Your task to perform on an android device: Go to Yahoo.com Image 0: 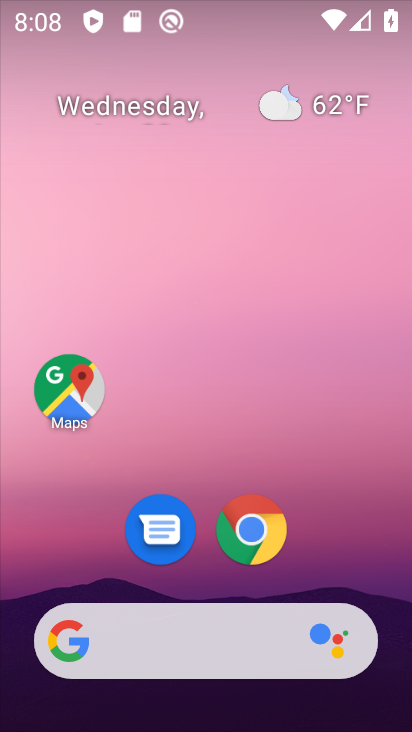
Step 0: drag from (218, 581) to (204, 100)
Your task to perform on an android device: Go to Yahoo.com Image 1: 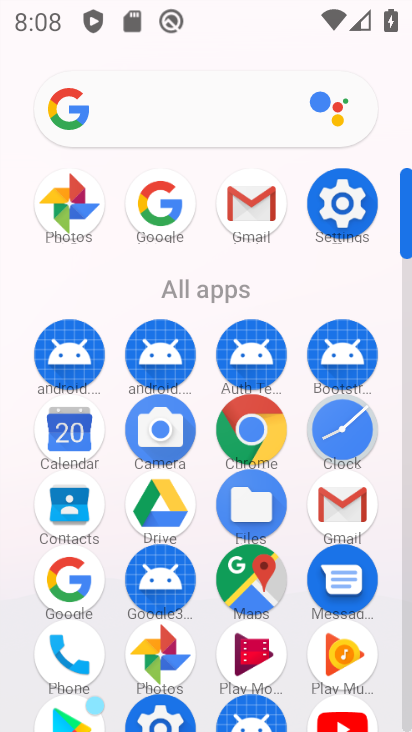
Step 1: click (254, 422)
Your task to perform on an android device: Go to Yahoo.com Image 2: 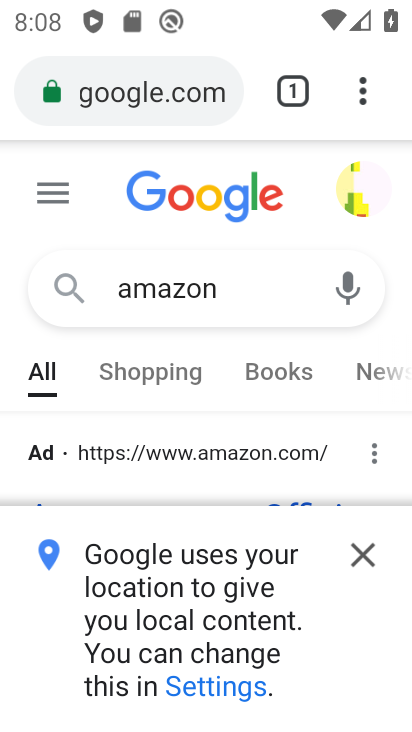
Step 2: click (176, 80)
Your task to perform on an android device: Go to Yahoo.com Image 3: 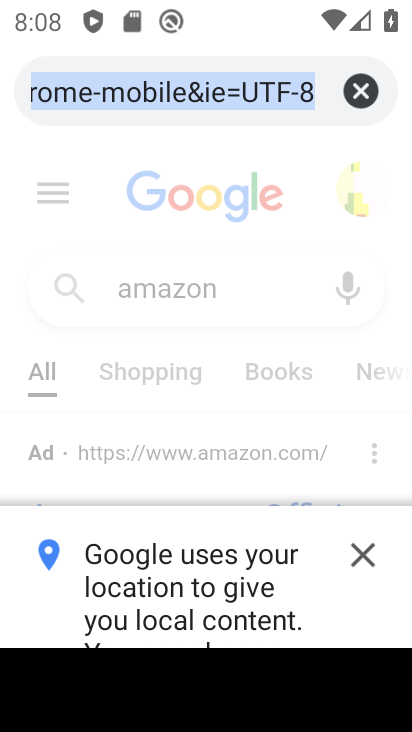
Step 3: type "yahoo.com"
Your task to perform on an android device: Go to Yahoo.com Image 4: 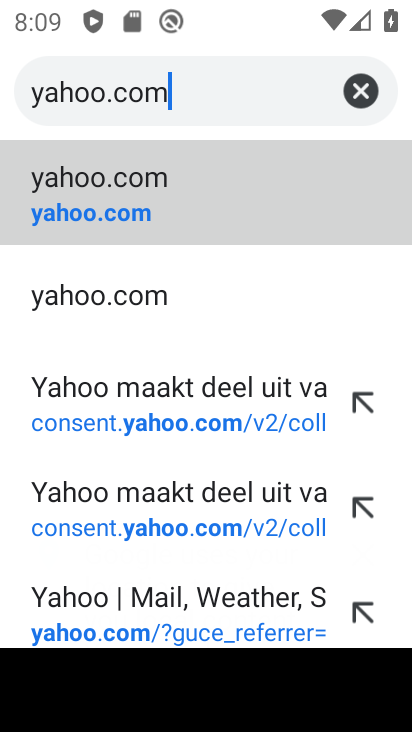
Step 4: click (161, 190)
Your task to perform on an android device: Go to Yahoo.com Image 5: 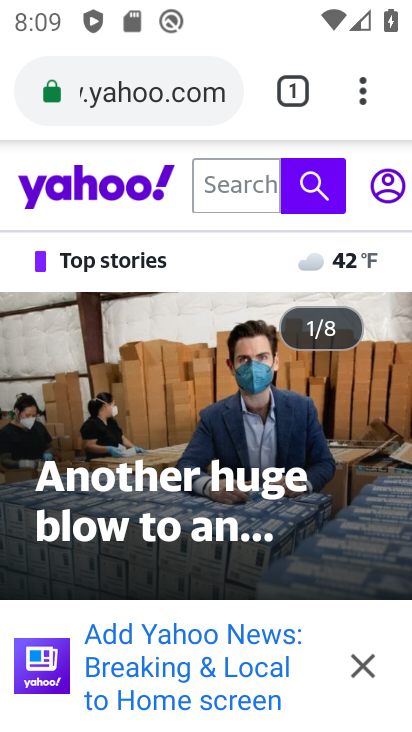
Step 5: task complete